Your task to perform on an android device: Open calendar and show me the second week of next month Image 0: 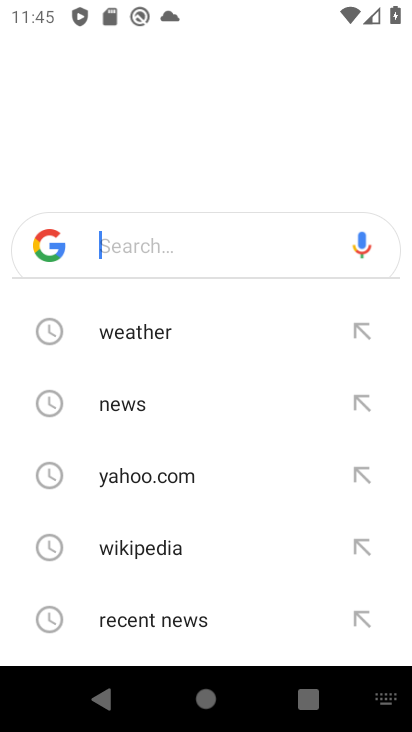
Step 0: press back button
Your task to perform on an android device: Open calendar and show me the second week of next month Image 1: 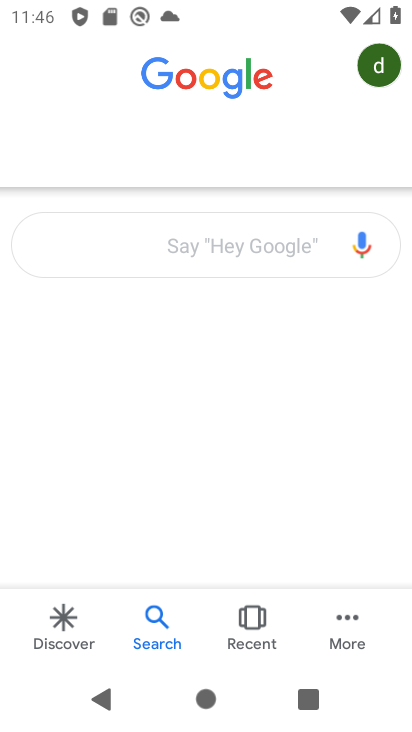
Step 1: press back button
Your task to perform on an android device: Open calendar and show me the second week of next month Image 2: 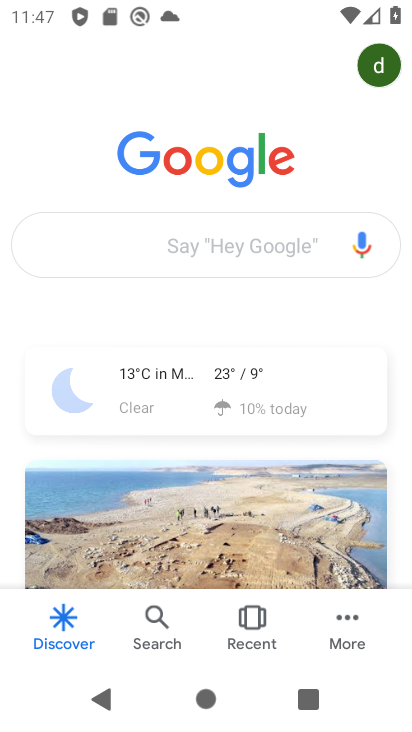
Step 2: press back button
Your task to perform on an android device: Open calendar and show me the second week of next month Image 3: 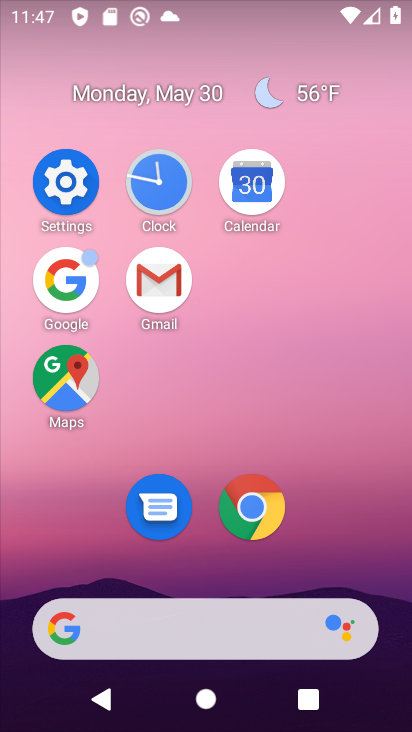
Step 3: click (250, 192)
Your task to perform on an android device: Open calendar and show me the second week of next month Image 4: 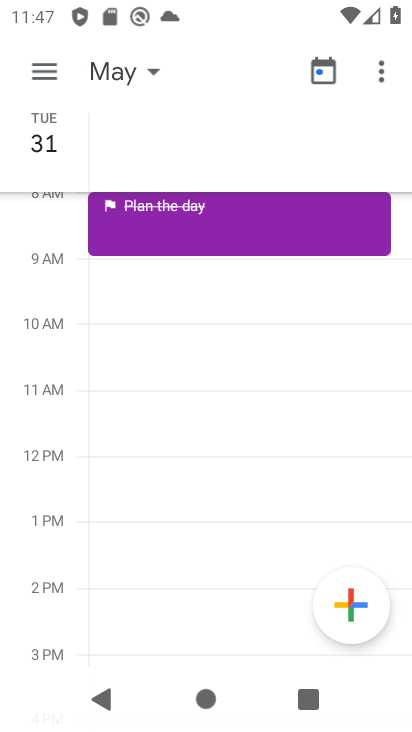
Step 4: click (138, 72)
Your task to perform on an android device: Open calendar and show me the second week of next month Image 5: 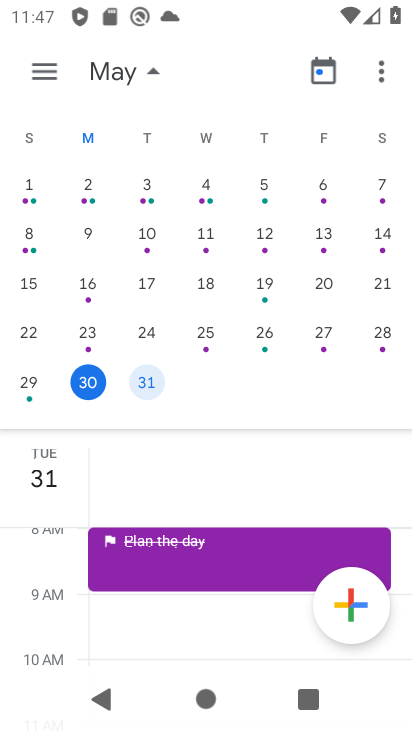
Step 5: drag from (387, 281) to (19, 216)
Your task to perform on an android device: Open calendar and show me the second week of next month Image 6: 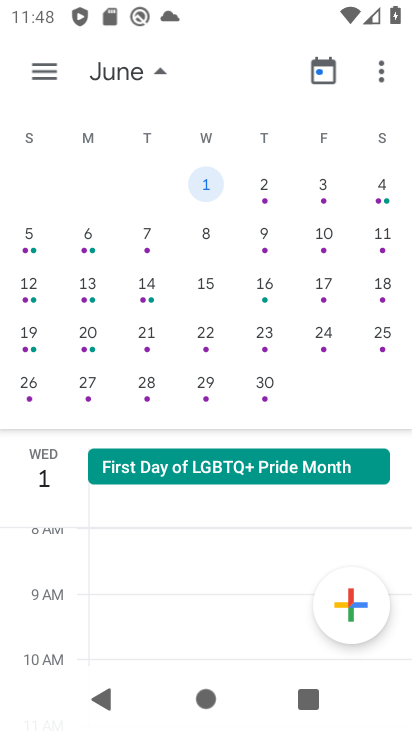
Step 6: click (50, 74)
Your task to perform on an android device: Open calendar and show me the second week of next month Image 7: 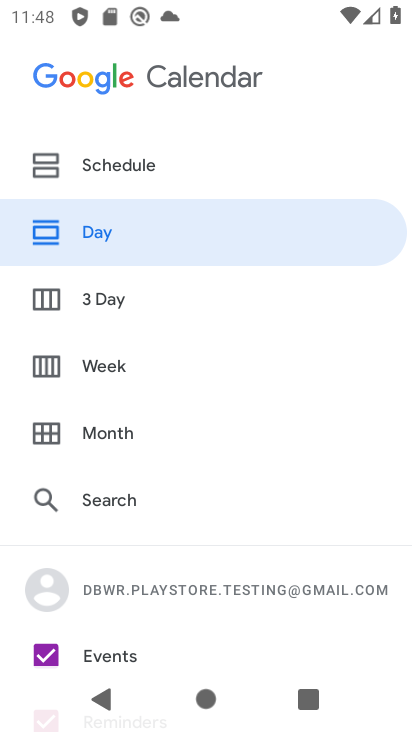
Step 7: click (183, 360)
Your task to perform on an android device: Open calendar and show me the second week of next month Image 8: 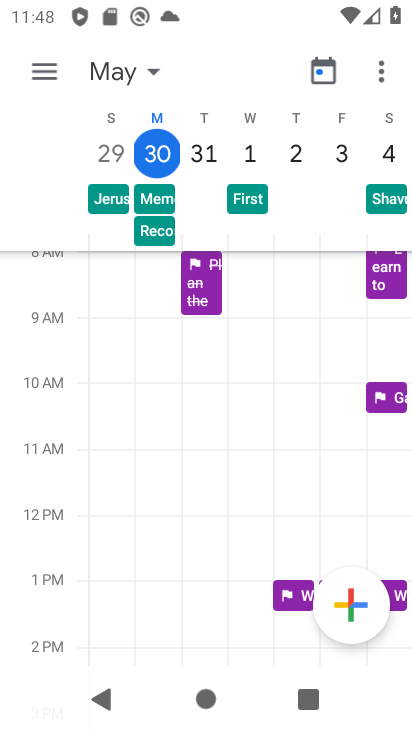
Step 8: task complete